Your task to perform on an android device: open app "Chime – Mobile Banking" Image 0: 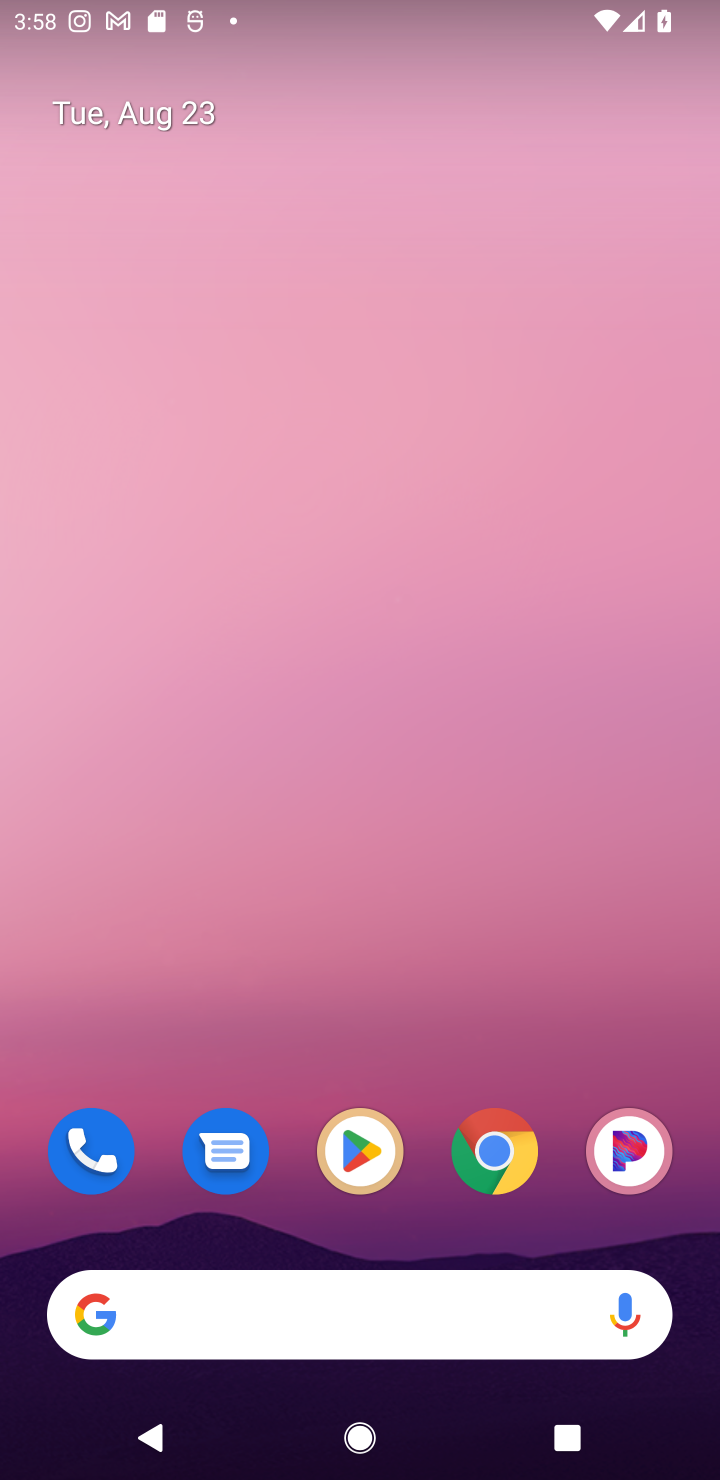
Step 0: press home button
Your task to perform on an android device: open app "Chime – Mobile Banking" Image 1: 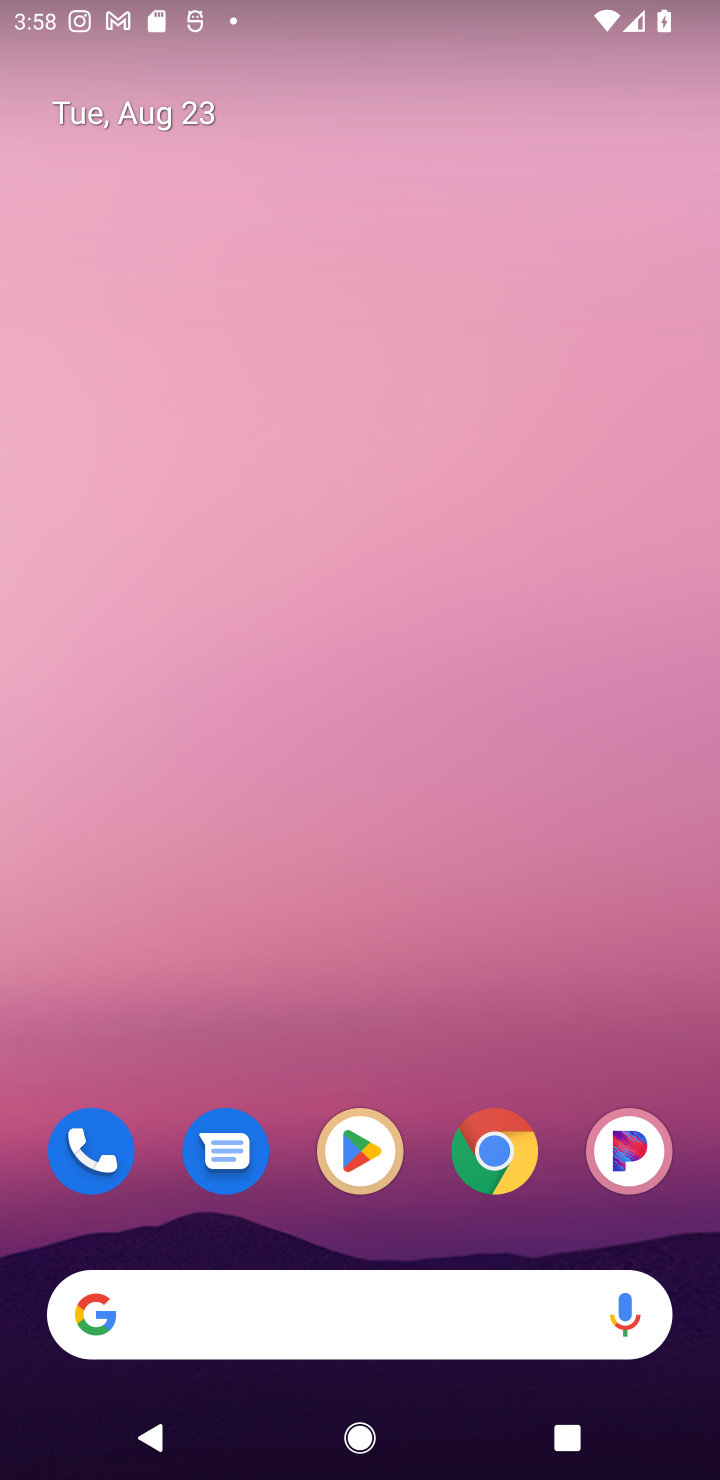
Step 1: click (360, 1157)
Your task to perform on an android device: open app "Chime – Mobile Banking" Image 2: 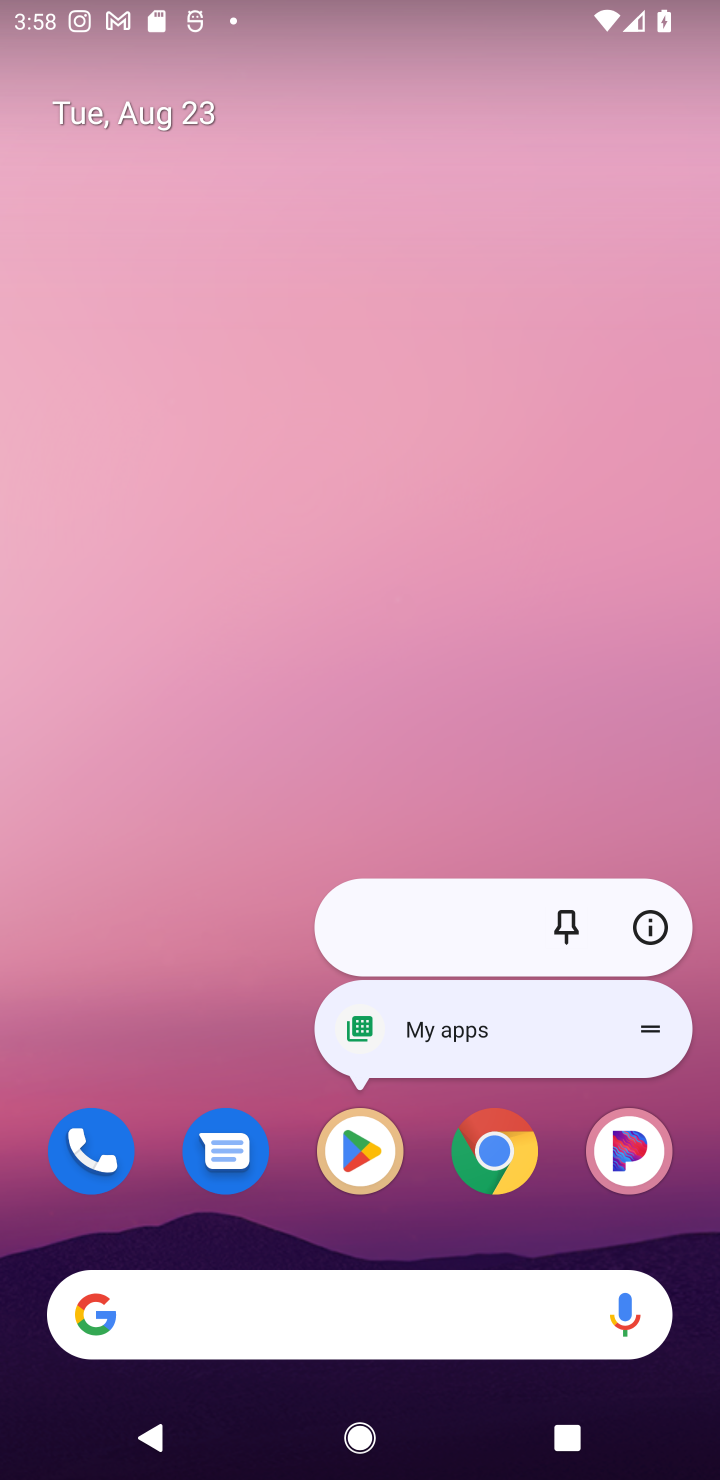
Step 2: click (360, 1160)
Your task to perform on an android device: open app "Chime – Mobile Banking" Image 3: 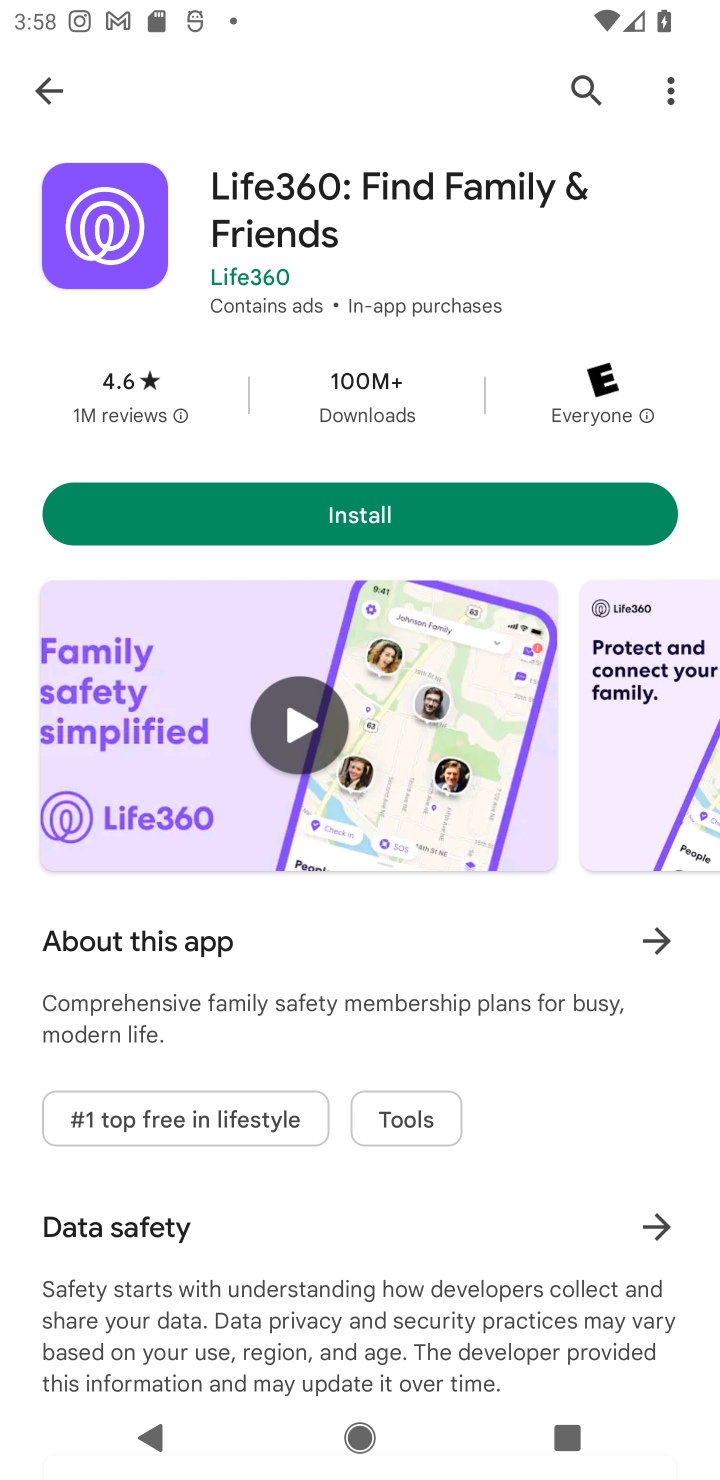
Step 3: click (587, 83)
Your task to perform on an android device: open app "Chime – Mobile Banking" Image 4: 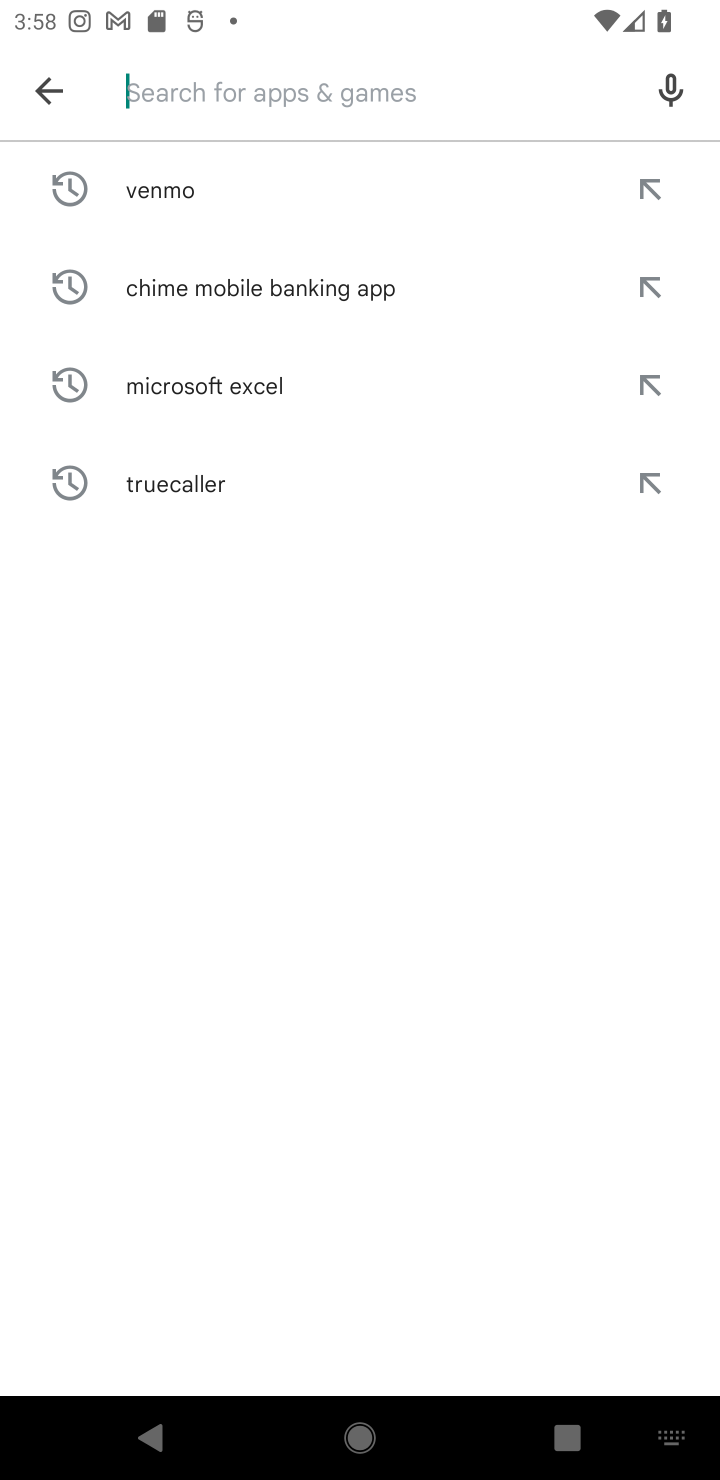
Step 4: type "Chime Mobile Banking"
Your task to perform on an android device: open app "Chime – Mobile Banking" Image 5: 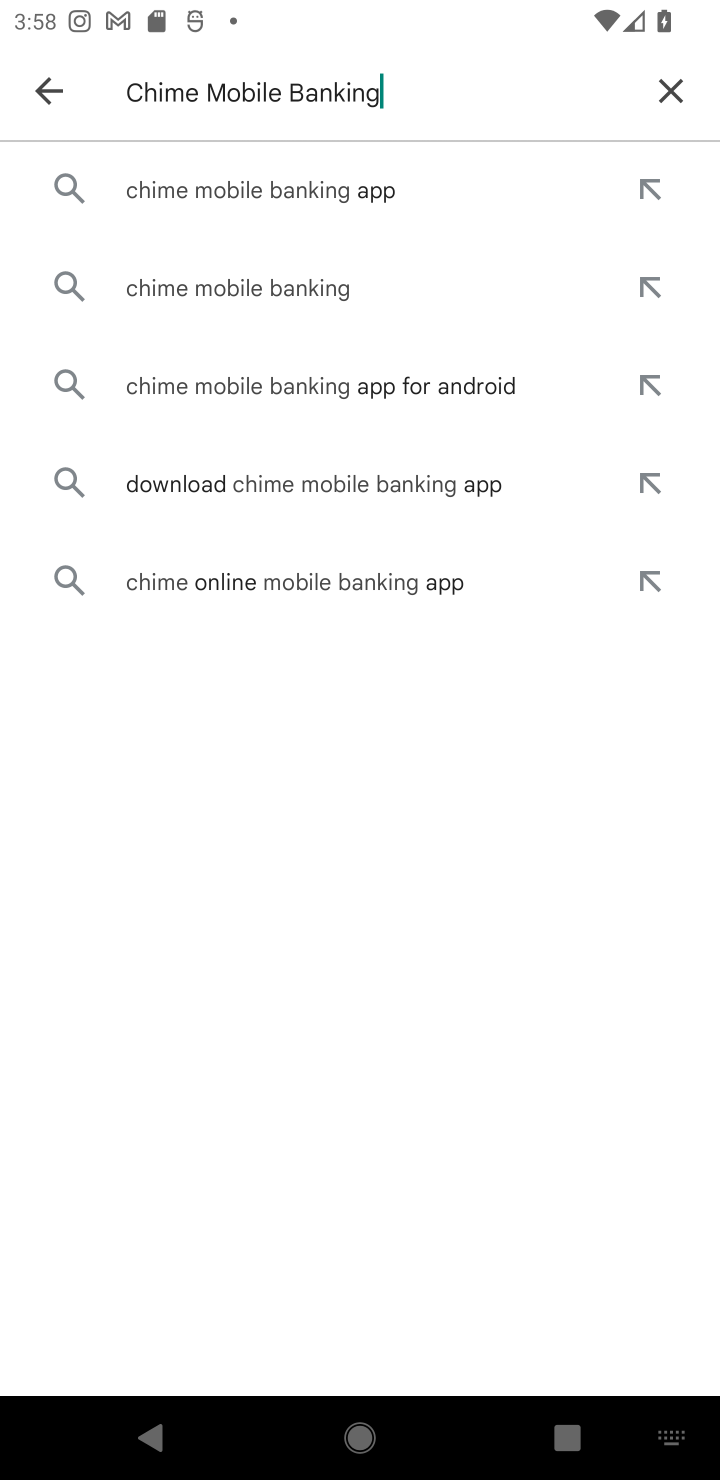
Step 5: click (308, 191)
Your task to perform on an android device: open app "Chime – Mobile Banking" Image 6: 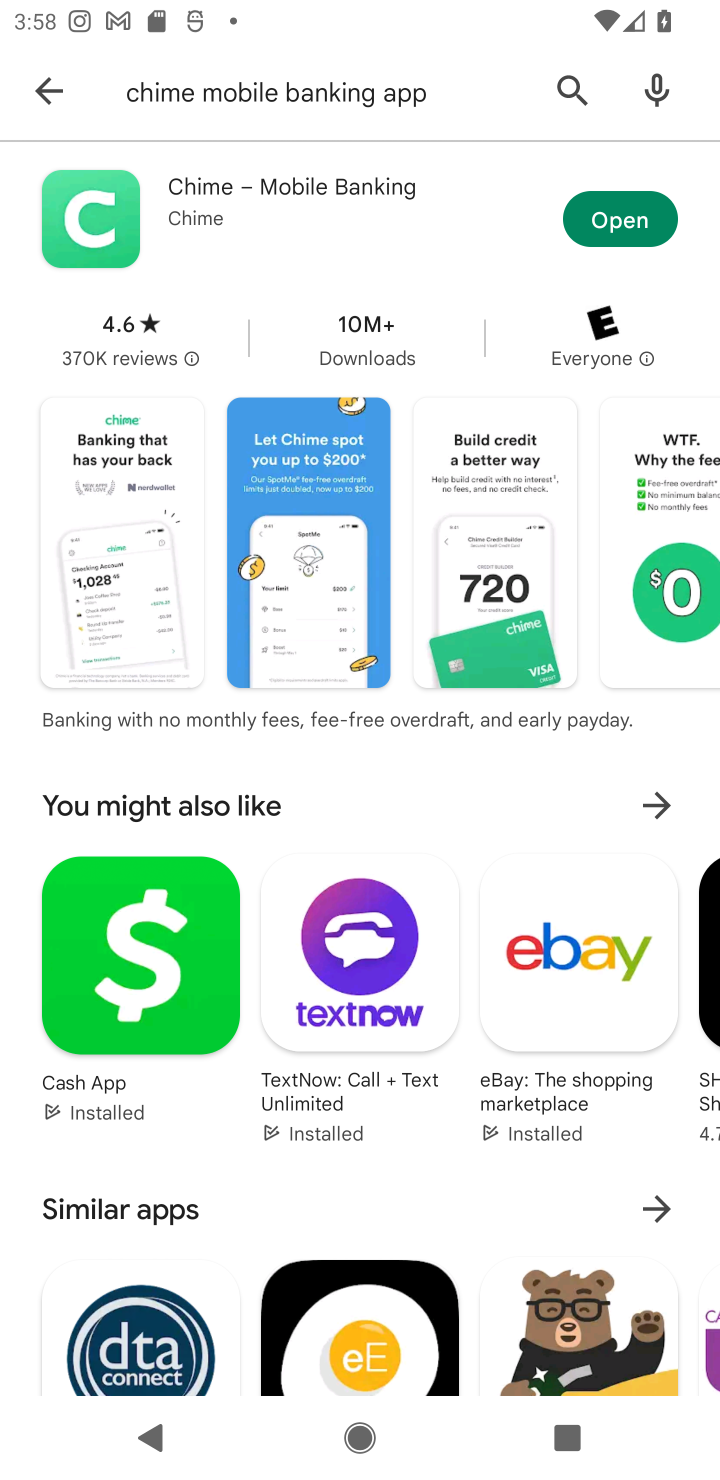
Step 6: click (581, 205)
Your task to perform on an android device: open app "Chime – Mobile Banking" Image 7: 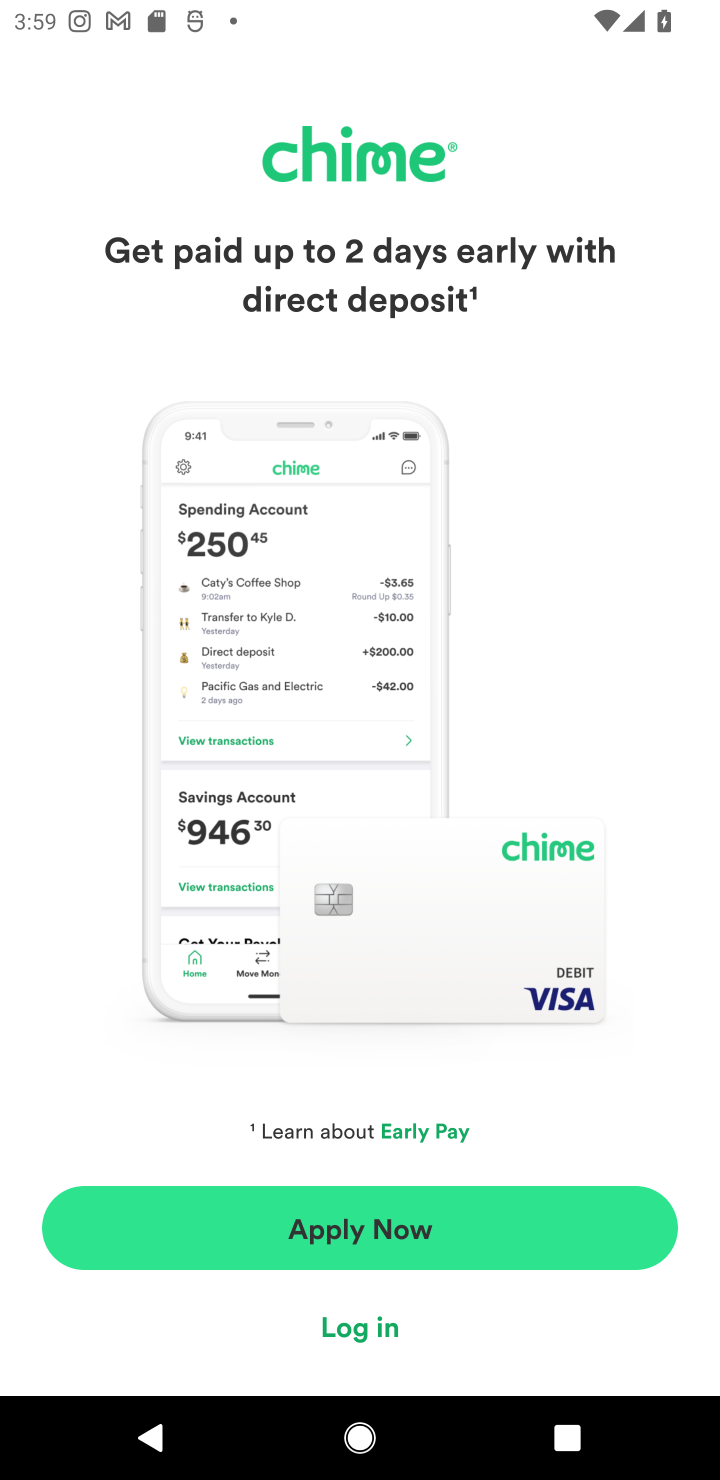
Step 7: task complete